Your task to perform on an android device: Open internet settings Image 0: 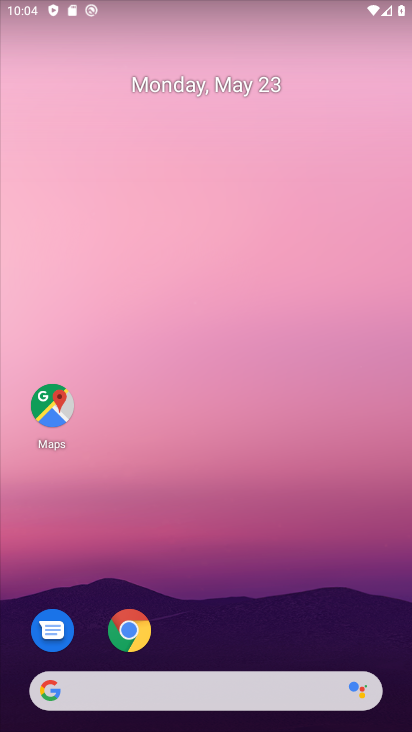
Step 0: drag from (314, 673) to (334, 9)
Your task to perform on an android device: Open internet settings Image 1: 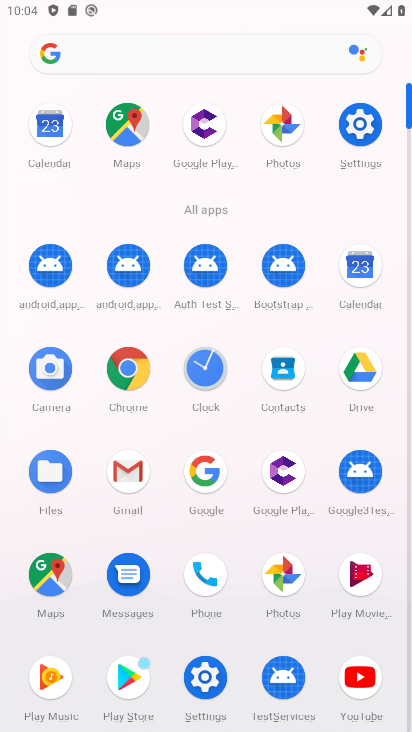
Step 1: click (355, 127)
Your task to perform on an android device: Open internet settings Image 2: 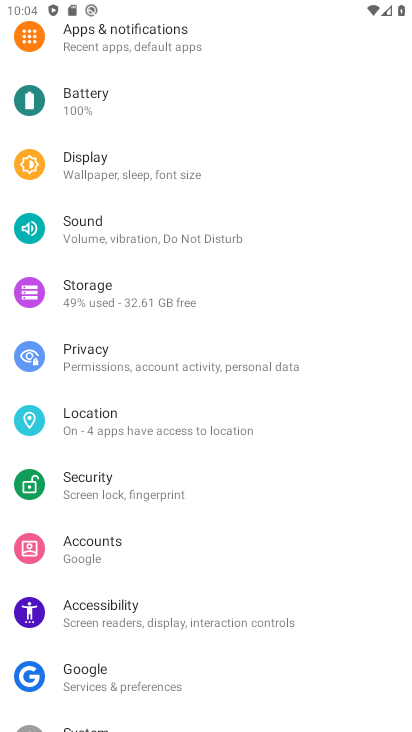
Step 2: drag from (355, 127) to (360, 405)
Your task to perform on an android device: Open internet settings Image 3: 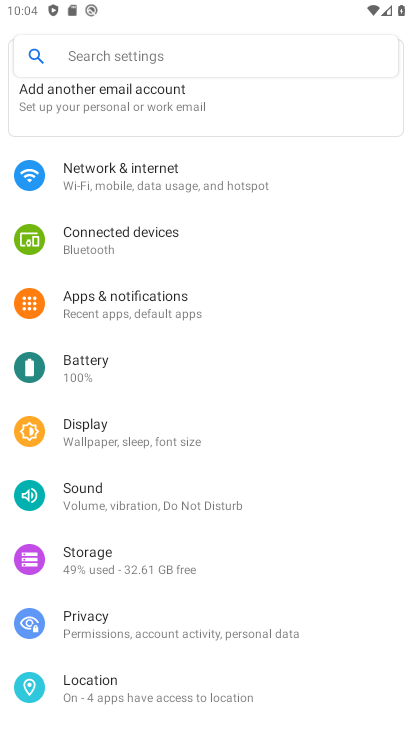
Step 3: click (151, 183)
Your task to perform on an android device: Open internet settings Image 4: 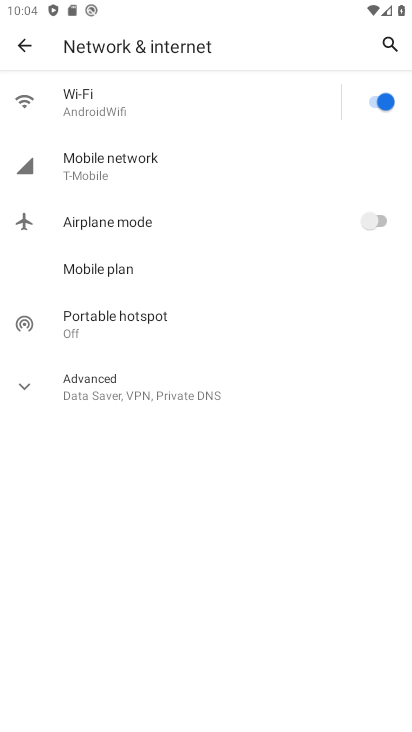
Step 4: task complete